Your task to perform on an android device: read, delete, or share a saved page in the chrome app Image 0: 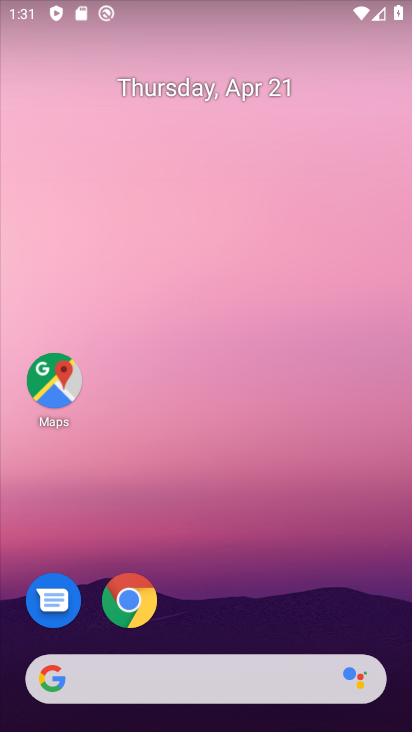
Step 0: click (135, 611)
Your task to perform on an android device: read, delete, or share a saved page in the chrome app Image 1: 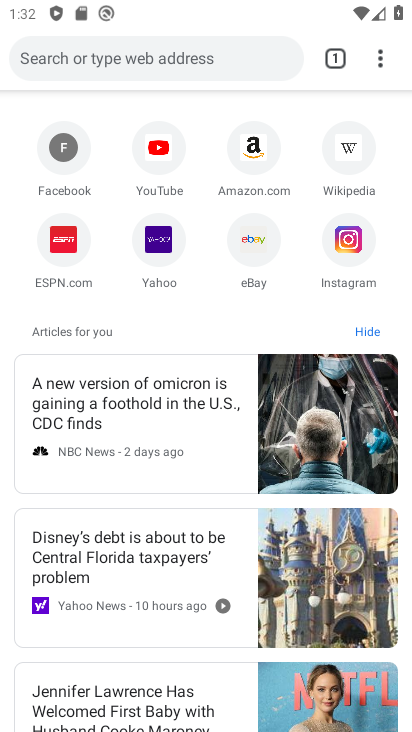
Step 1: click (381, 61)
Your task to perform on an android device: read, delete, or share a saved page in the chrome app Image 2: 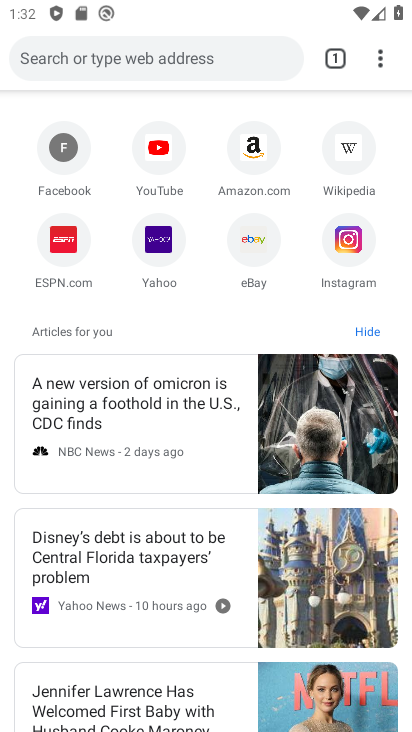
Step 2: drag from (377, 54) to (187, 383)
Your task to perform on an android device: read, delete, or share a saved page in the chrome app Image 3: 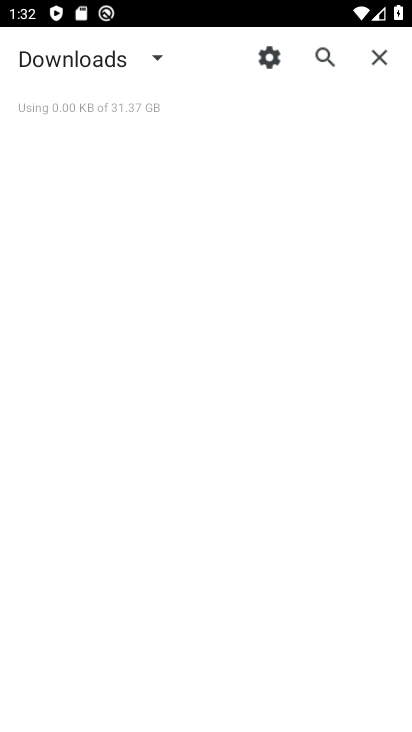
Step 3: click (151, 56)
Your task to perform on an android device: read, delete, or share a saved page in the chrome app Image 4: 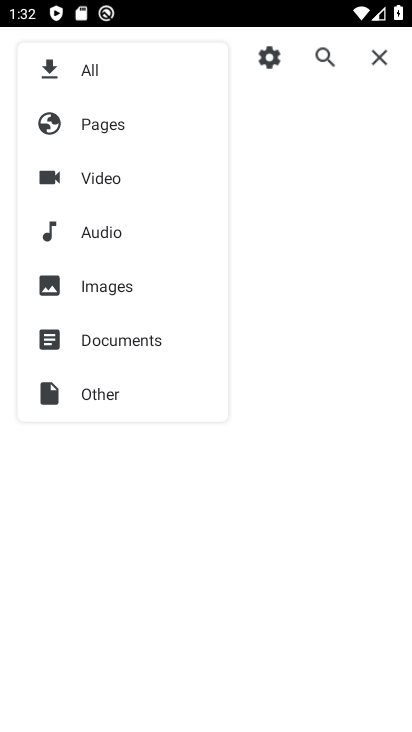
Step 4: click (113, 124)
Your task to perform on an android device: read, delete, or share a saved page in the chrome app Image 5: 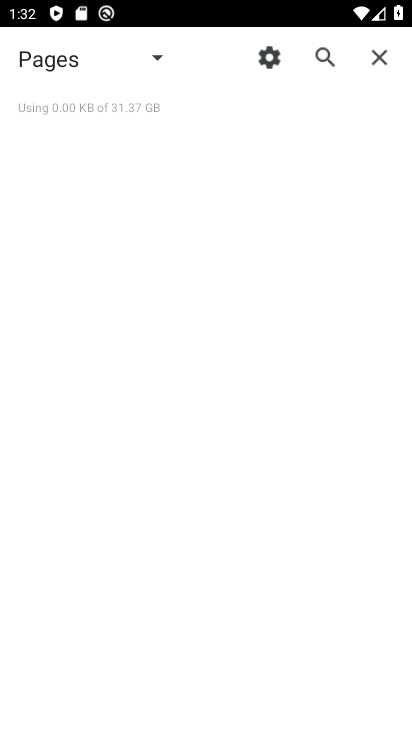
Step 5: task complete